Your task to perform on an android device: Open Youtube and go to the subscriptions tab Image 0: 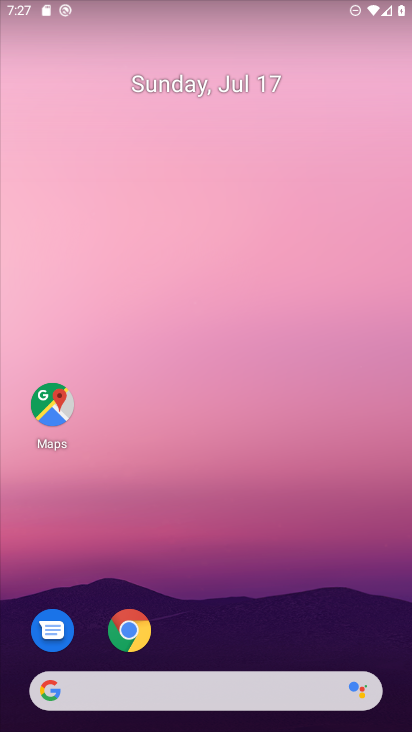
Step 0: drag from (370, 628) to (238, 38)
Your task to perform on an android device: Open Youtube and go to the subscriptions tab Image 1: 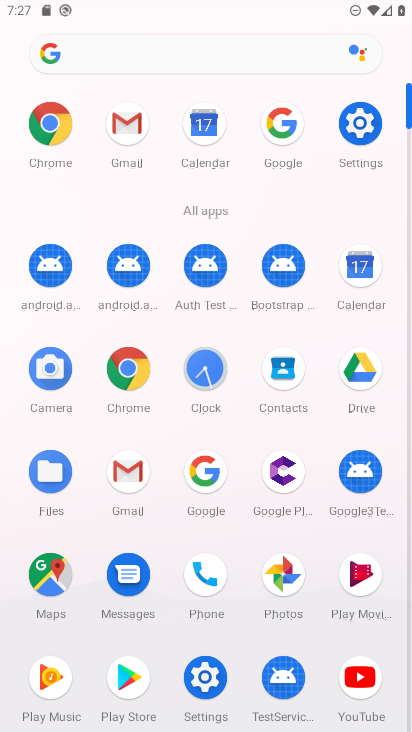
Step 1: click (338, 671)
Your task to perform on an android device: Open Youtube and go to the subscriptions tab Image 2: 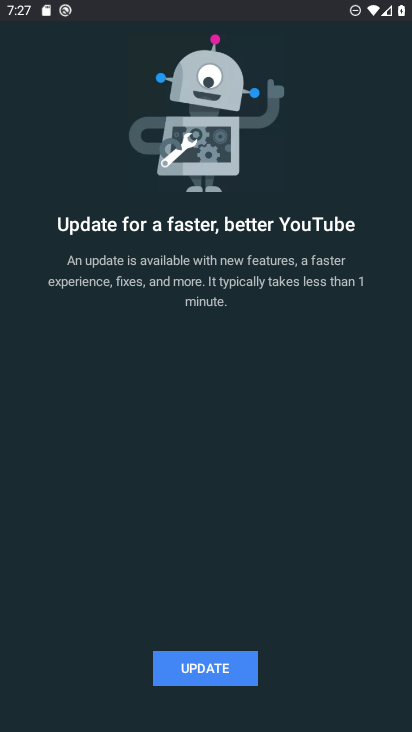
Step 2: click (213, 673)
Your task to perform on an android device: Open Youtube and go to the subscriptions tab Image 3: 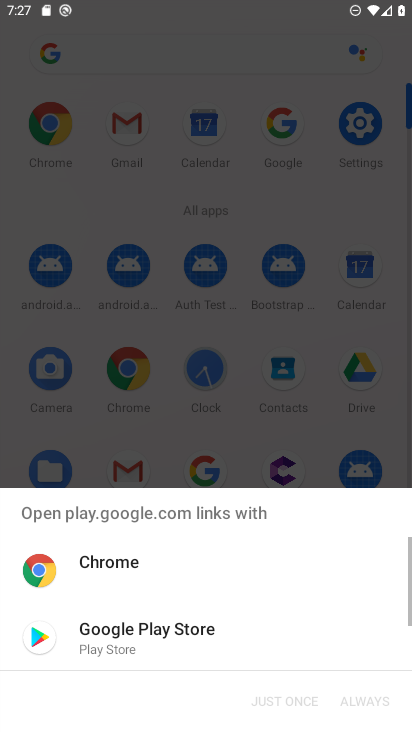
Step 3: click (106, 621)
Your task to perform on an android device: Open Youtube and go to the subscriptions tab Image 4: 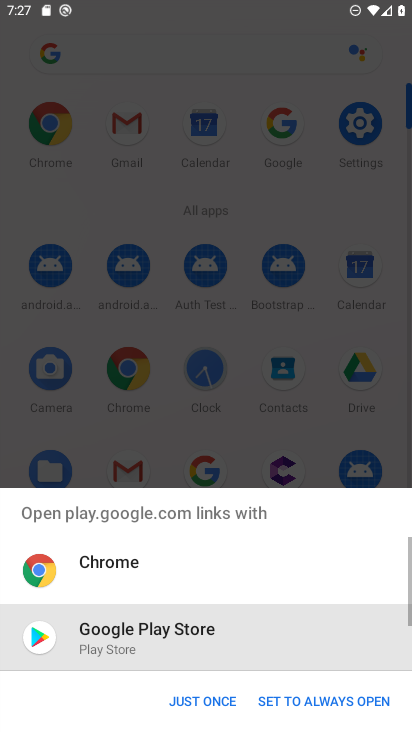
Step 4: click (206, 693)
Your task to perform on an android device: Open Youtube and go to the subscriptions tab Image 5: 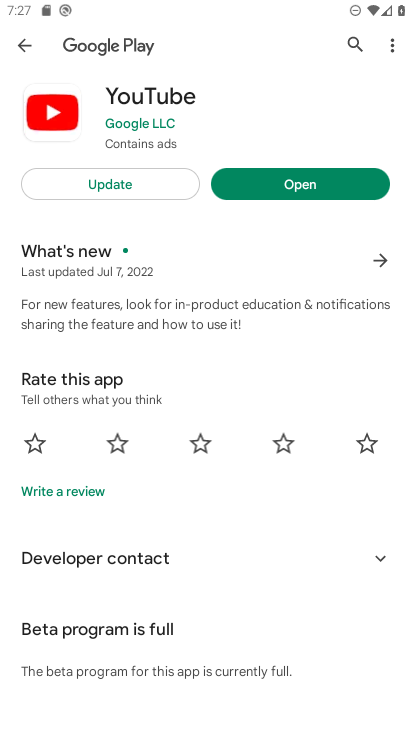
Step 5: click (126, 193)
Your task to perform on an android device: Open Youtube and go to the subscriptions tab Image 6: 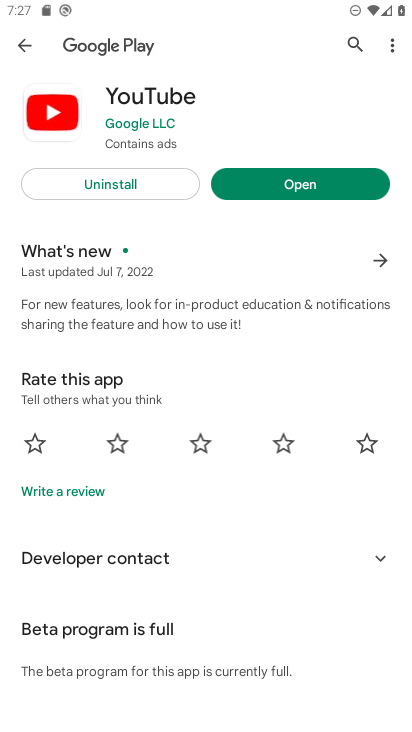
Step 6: click (279, 184)
Your task to perform on an android device: Open Youtube and go to the subscriptions tab Image 7: 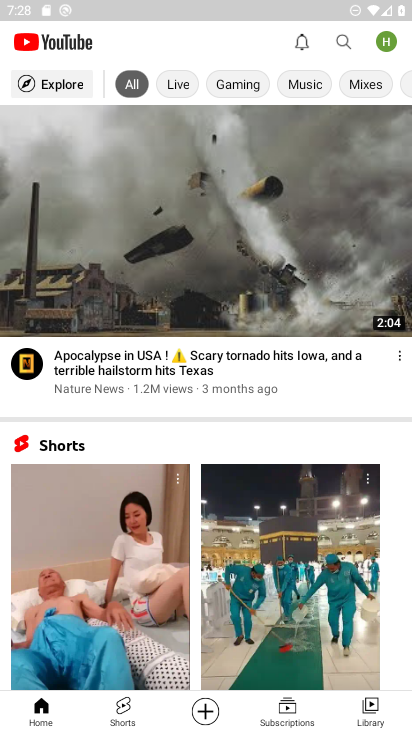
Step 7: click (262, 712)
Your task to perform on an android device: Open Youtube and go to the subscriptions tab Image 8: 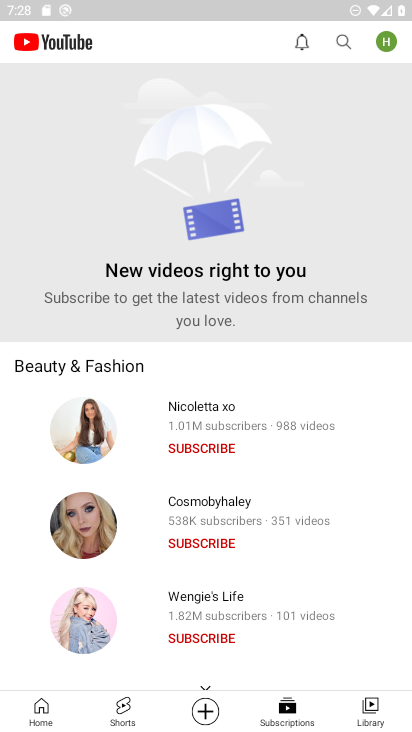
Step 8: task complete